Your task to perform on an android device: check battery use Image 0: 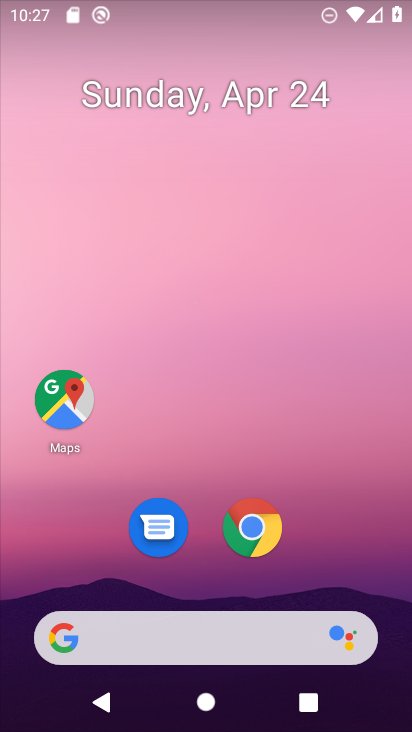
Step 0: drag from (388, 620) to (303, 40)
Your task to perform on an android device: check battery use Image 1: 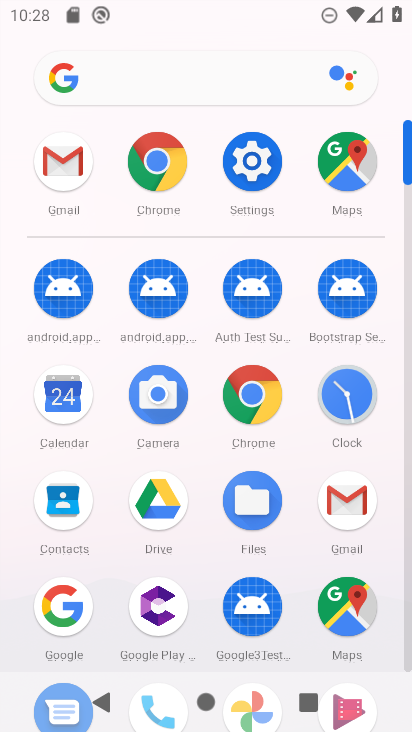
Step 1: click (247, 177)
Your task to perform on an android device: check battery use Image 2: 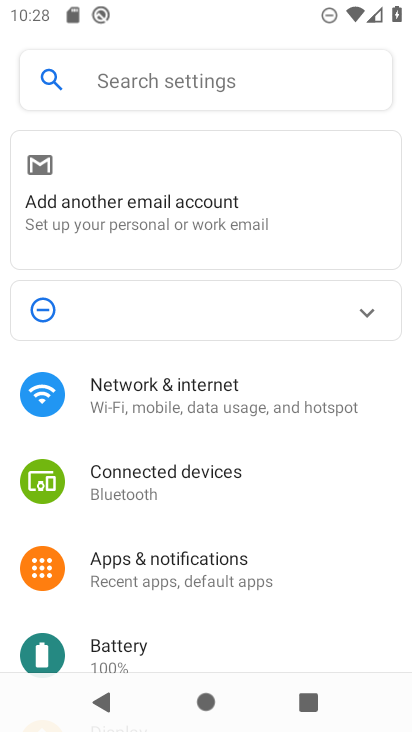
Step 2: click (167, 654)
Your task to perform on an android device: check battery use Image 3: 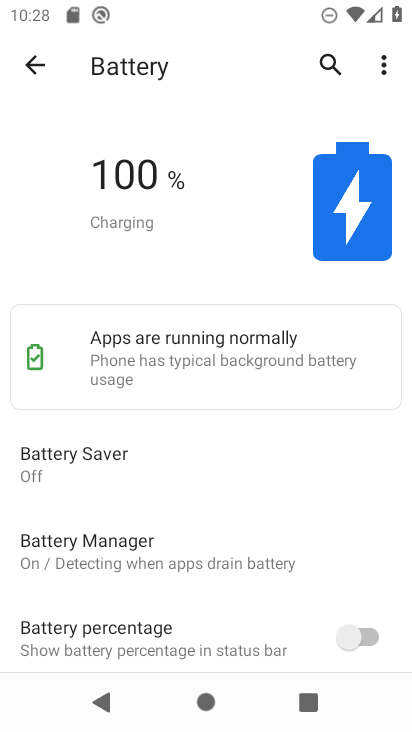
Step 3: click (383, 60)
Your task to perform on an android device: check battery use Image 4: 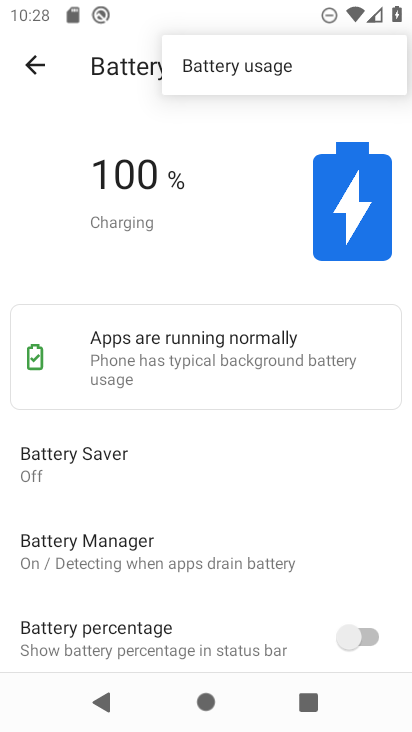
Step 4: click (303, 62)
Your task to perform on an android device: check battery use Image 5: 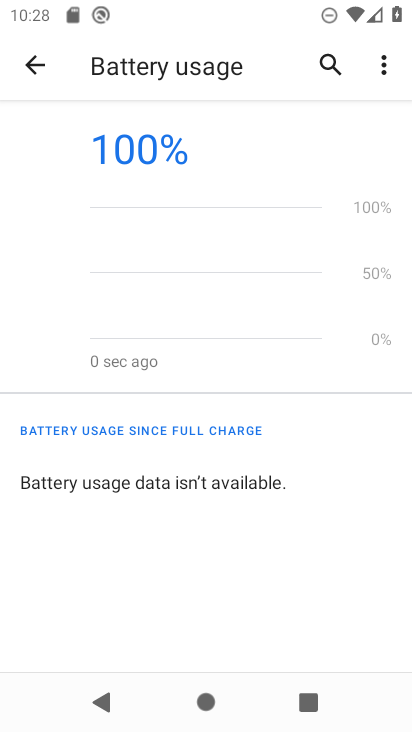
Step 5: task complete